Your task to perform on an android device: stop showing notifications on the lock screen Image 0: 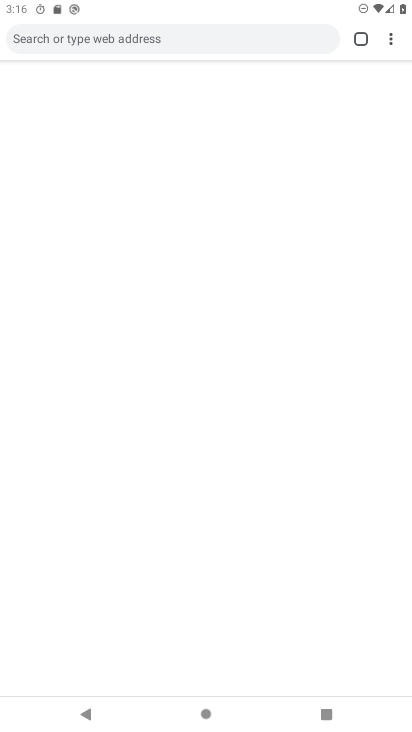
Step 0: drag from (212, 617) to (217, 501)
Your task to perform on an android device: stop showing notifications on the lock screen Image 1: 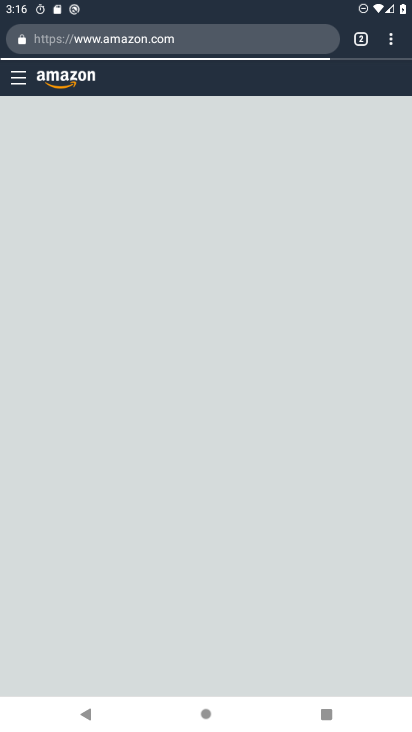
Step 1: press home button
Your task to perform on an android device: stop showing notifications on the lock screen Image 2: 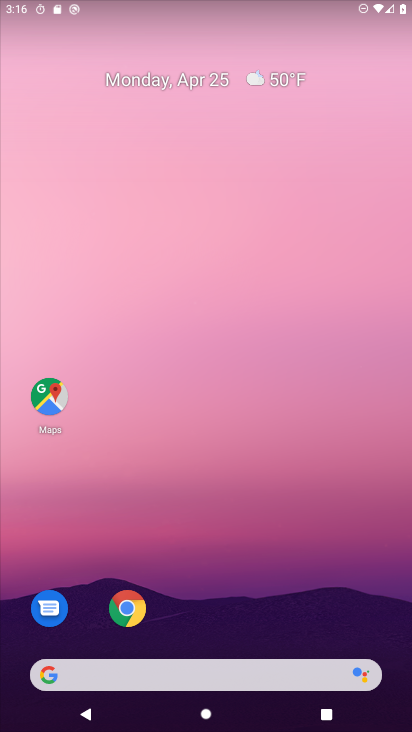
Step 2: drag from (222, 610) to (222, 109)
Your task to perform on an android device: stop showing notifications on the lock screen Image 3: 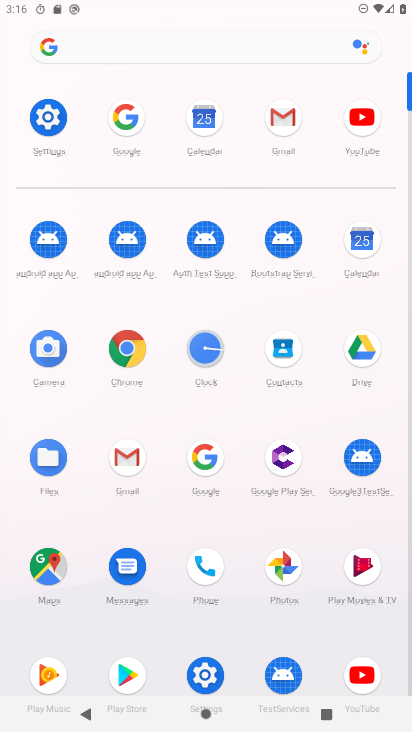
Step 3: click (64, 125)
Your task to perform on an android device: stop showing notifications on the lock screen Image 4: 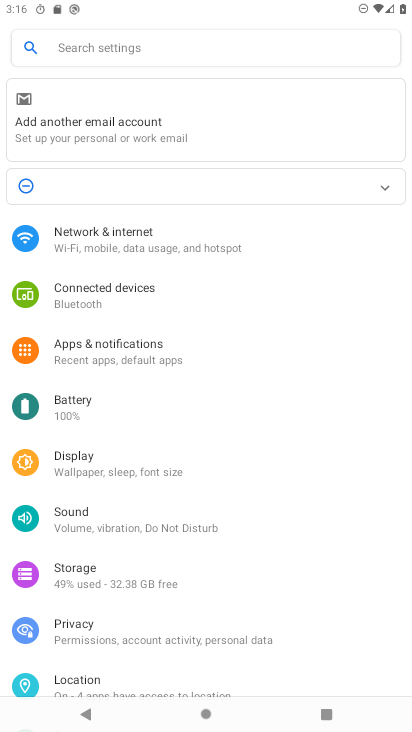
Step 4: click (135, 355)
Your task to perform on an android device: stop showing notifications on the lock screen Image 5: 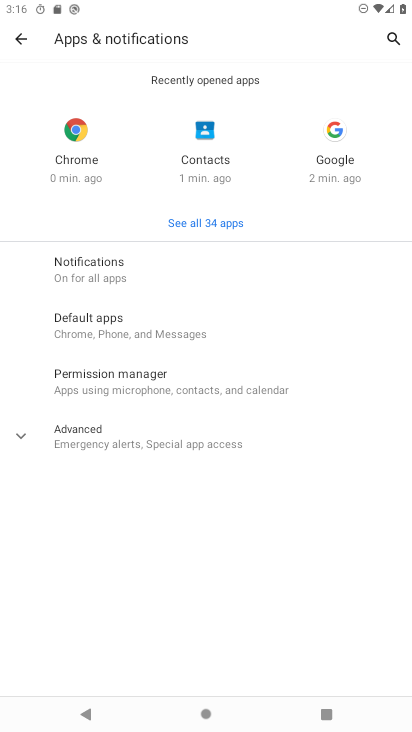
Step 5: click (99, 280)
Your task to perform on an android device: stop showing notifications on the lock screen Image 6: 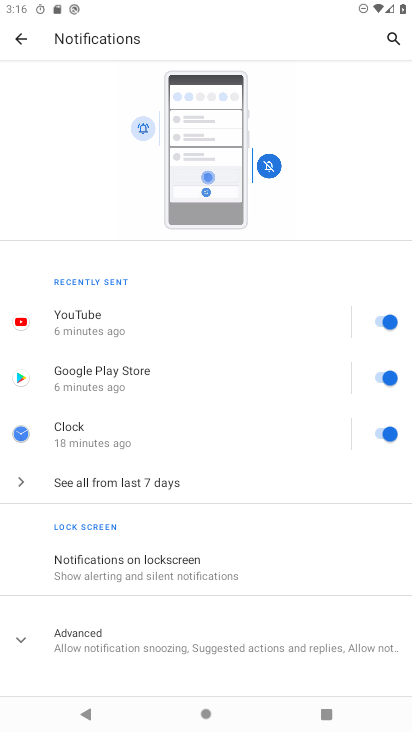
Step 6: click (198, 562)
Your task to perform on an android device: stop showing notifications on the lock screen Image 7: 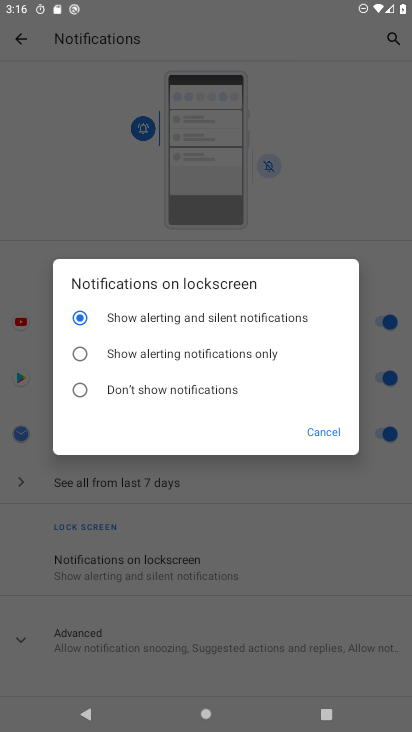
Step 7: click (155, 391)
Your task to perform on an android device: stop showing notifications on the lock screen Image 8: 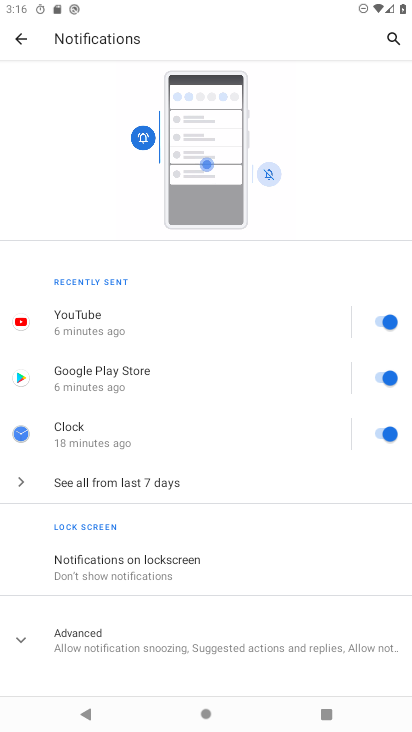
Step 8: task complete